Your task to perform on an android device: Open the calendar app, open the side menu, and click the "Day" option Image 0: 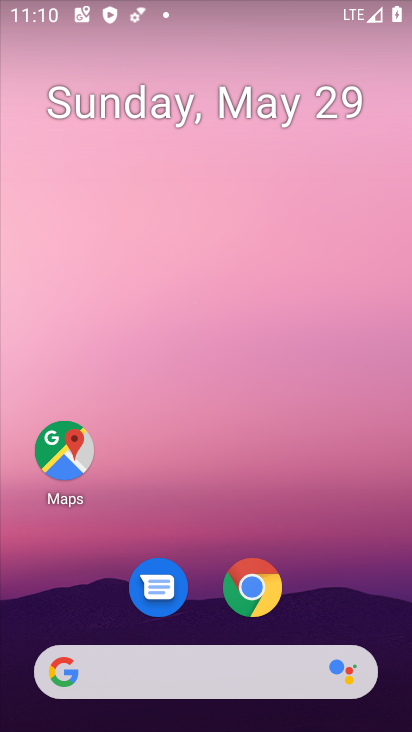
Step 0: drag from (327, 546) to (308, 122)
Your task to perform on an android device: Open the calendar app, open the side menu, and click the "Day" option Image 1: 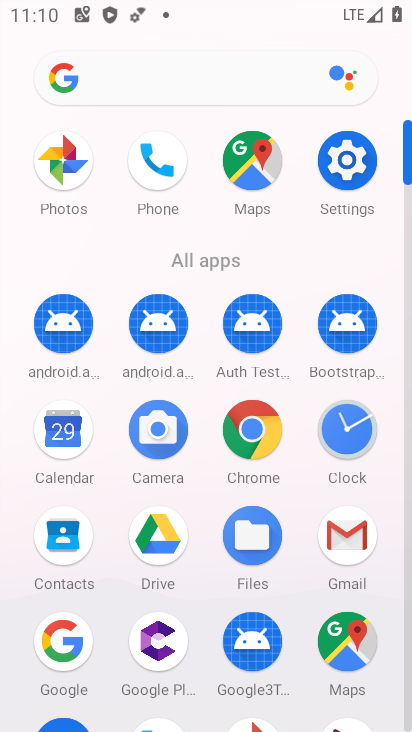
Step 1: click (65, 423)
Your task to perform on an android device: Open the calendar app, open the side menu, and click the "Day" option Image 2: 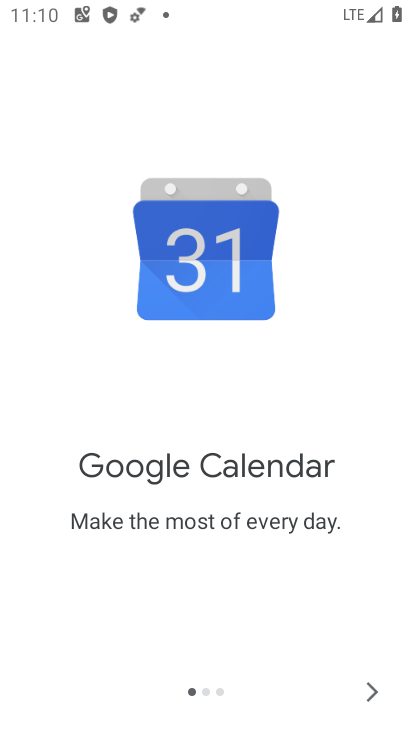
Step 2: click (375, 673)
Your task to perform on an android device: Open the calendar app, open the side menu, and click the "Day" option Image 3: 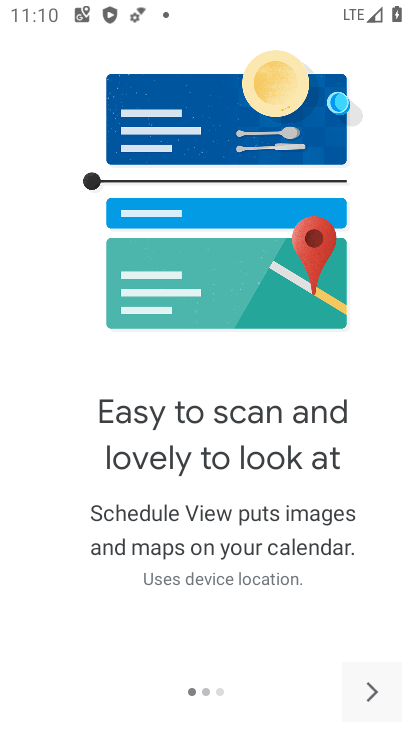
Step 3: click (375, 672)
Your task to perform on an android device: Open the calendar app, open the side menu, and click the "Day" option Image 4: 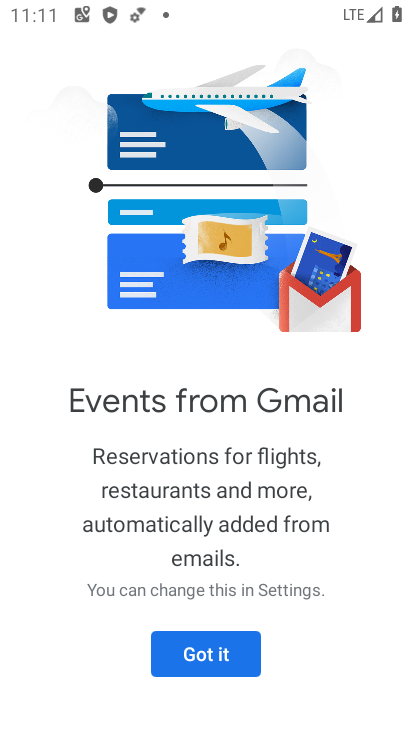
Step 4: click (201, 647)
Your task to perform on an android device: Open the calendar app, open the side menu, and click the "Day" option Image 5: 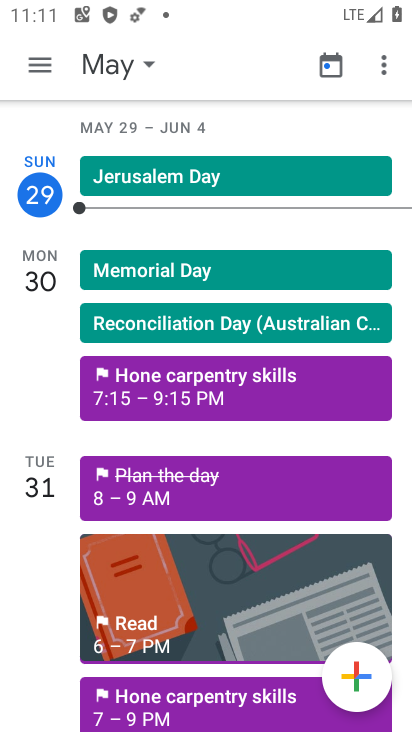
Step 5: click (30, 66)
Your task to perform on an android device: Open the calendar app, open the side menu, and click the "Day" option Image 6: 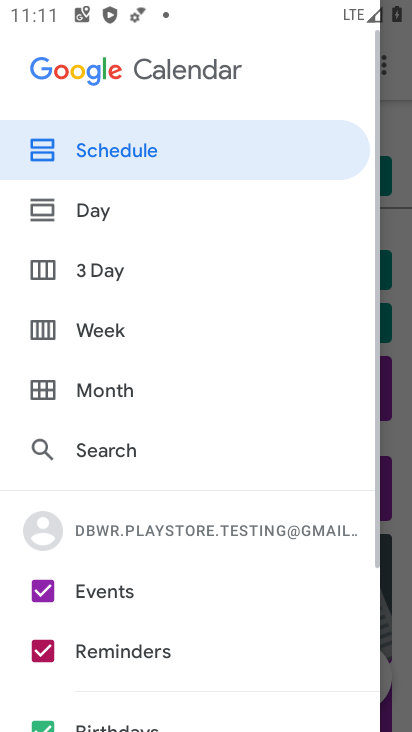
Step 6: click (68, 205)
Your task to perform on an android device: Open the calendar app, open the side menu, and click the "Day" option Image 7: 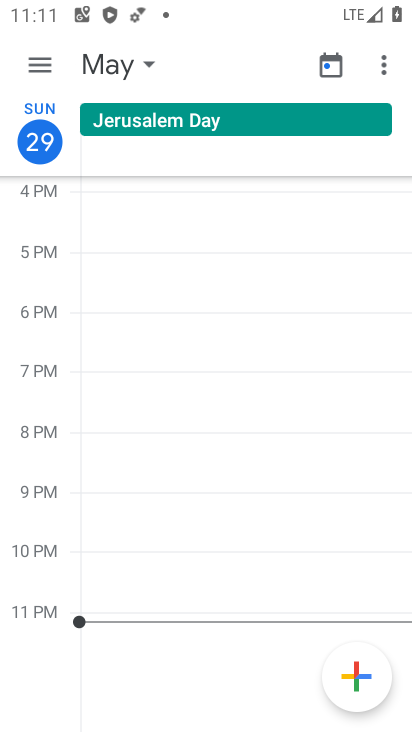
Step 7: task complete